Your task to perform on an android device: Go to Maps Image 0: 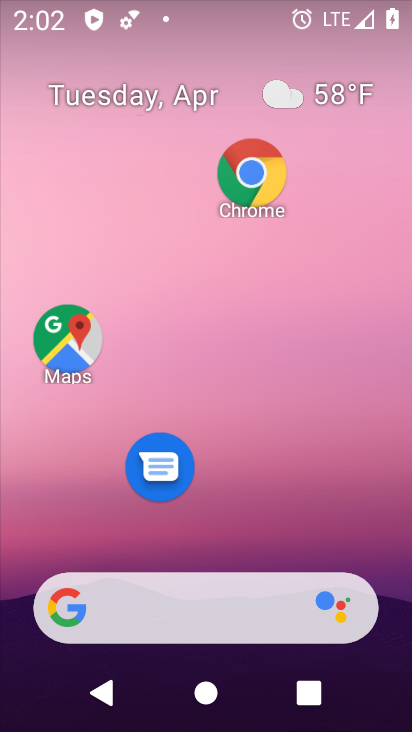
Step 0: drag from (338, 574) to (297, 19)
Your task to perform on an android device: Go to Maps Image 1: 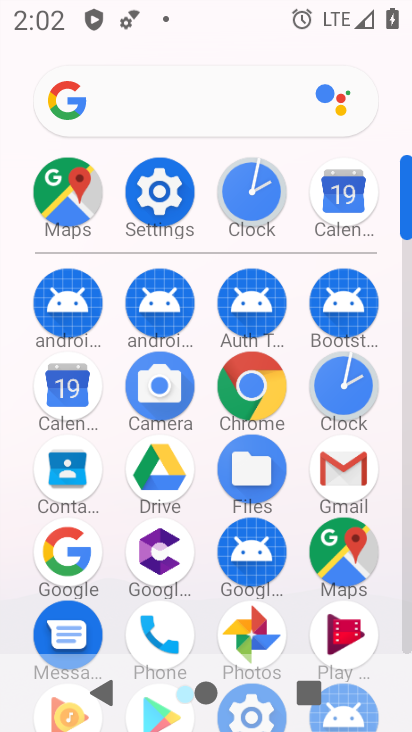
Step 1: click (339, 549)
Your task to perform on an android device: Go to Maps Image 2: 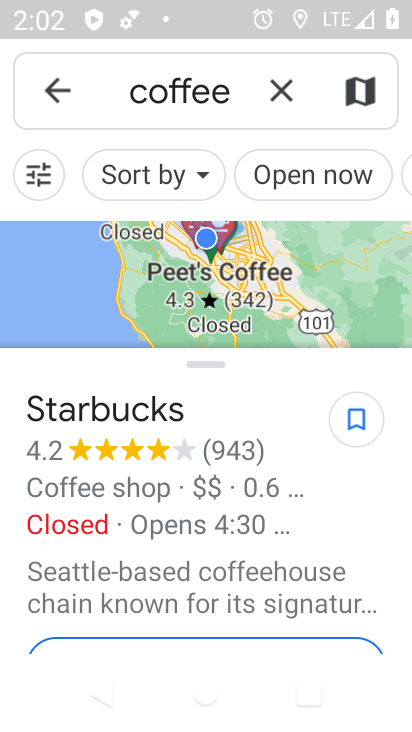
Step 2: click (272, 81)
Your task to perform on an android device: Go to Maps Image 3: 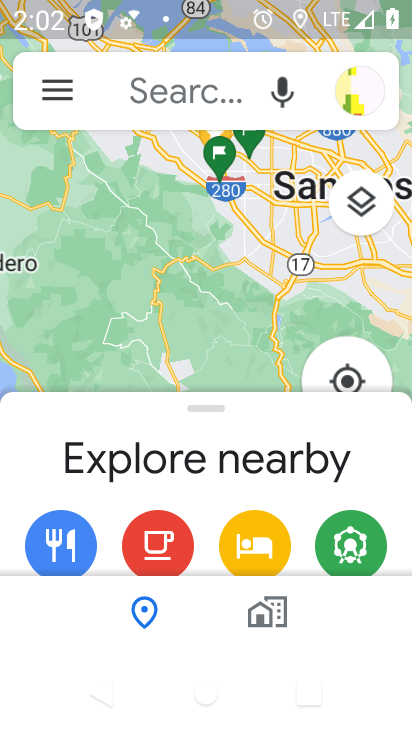
Step 3: click (164, 120)
Your task to perform on an android device: Go to Maps Image 4: 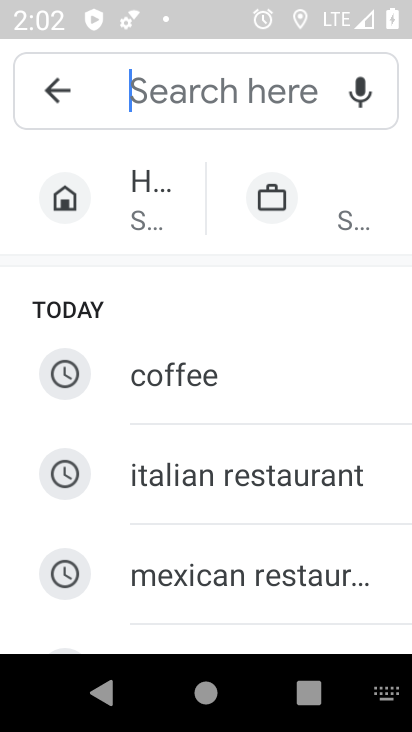
Step 4: click (67, 87)
Your task to perform on an android device: Go to Maps Image 5: 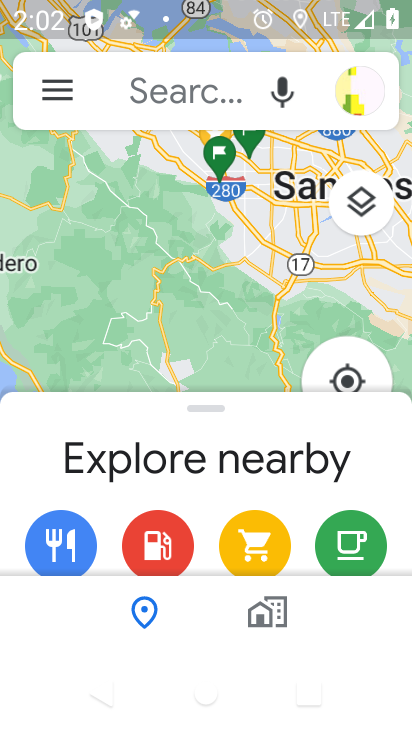
Step 5: task complete